Your task to perform on an android device: change your default location settings in chrome Image 0: 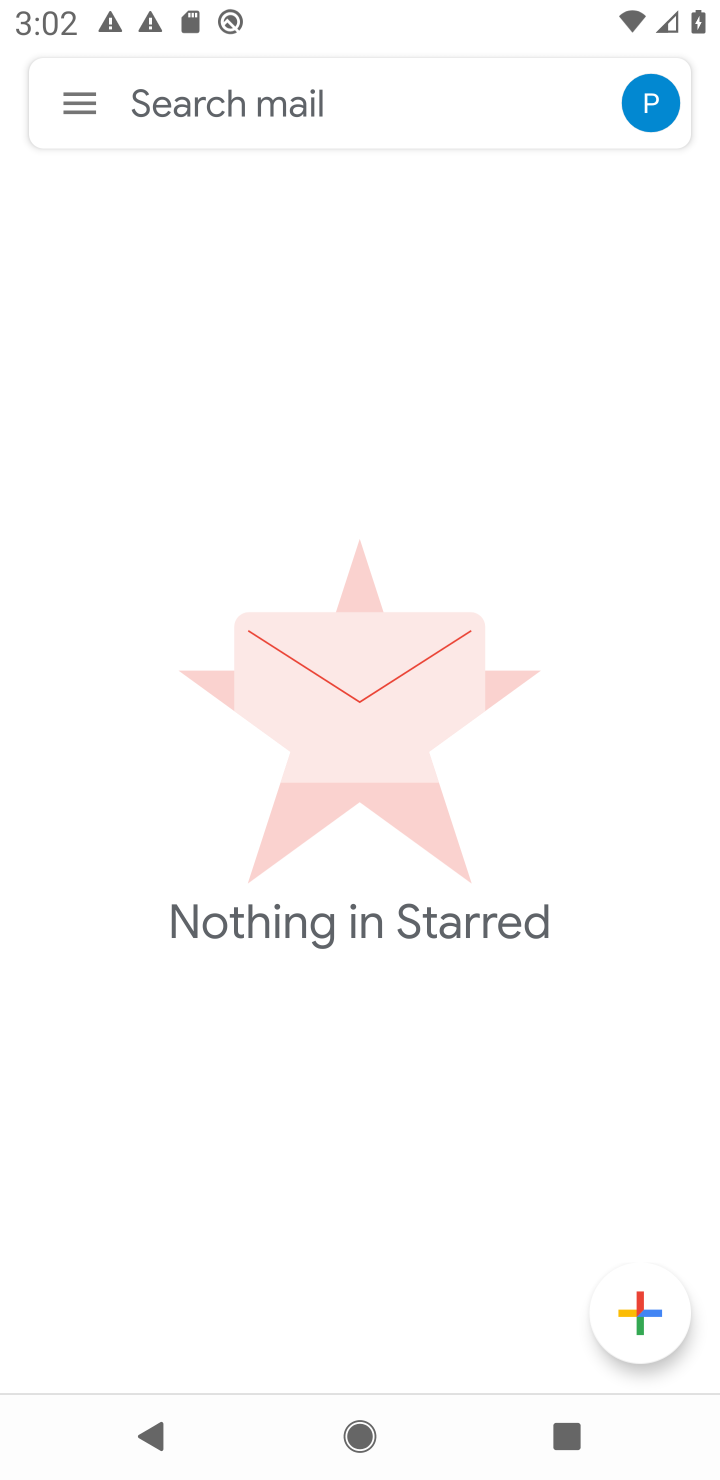
Step 0: press home button
Your task to perform on an android device: change your default location settings in chrome Image 1: 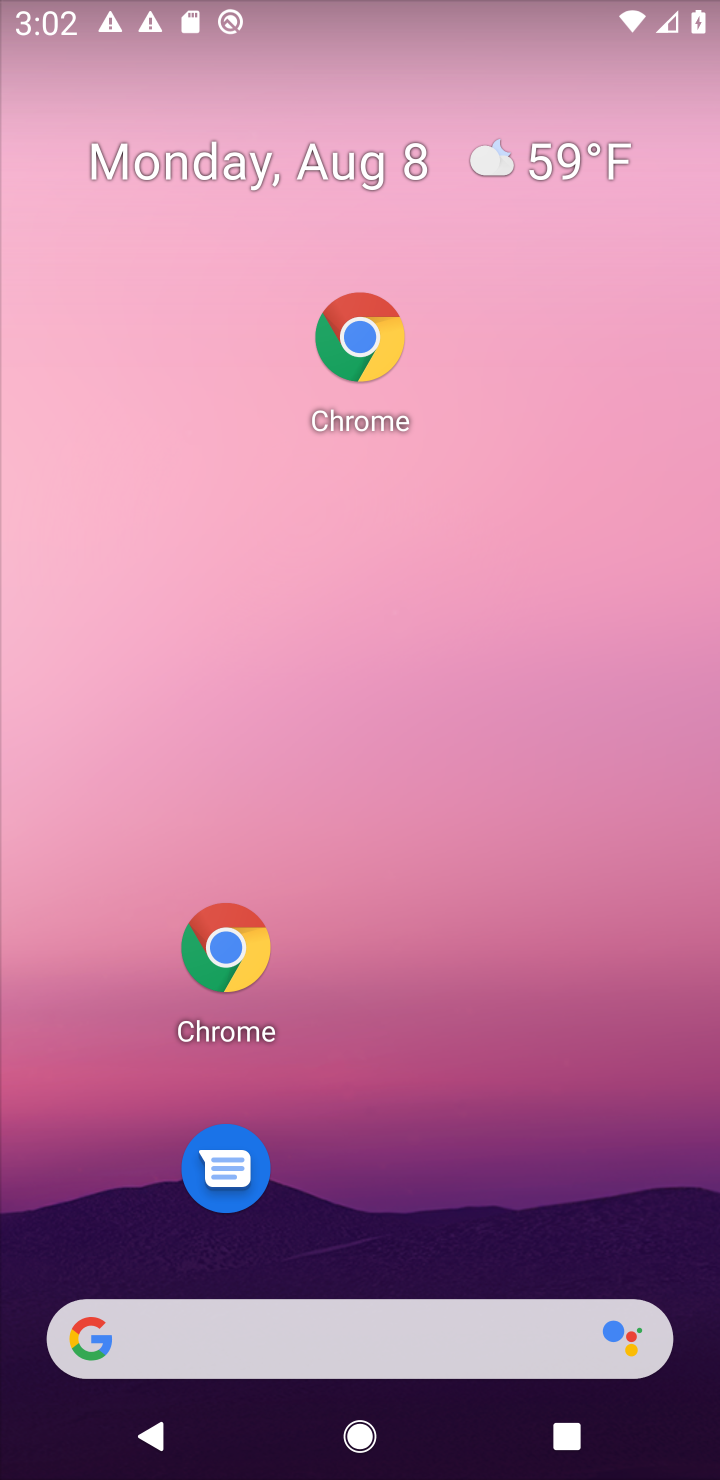
Step 1: click (227, 973)
Your task to perform on an android device: change your default location settings in chrome Image 2: 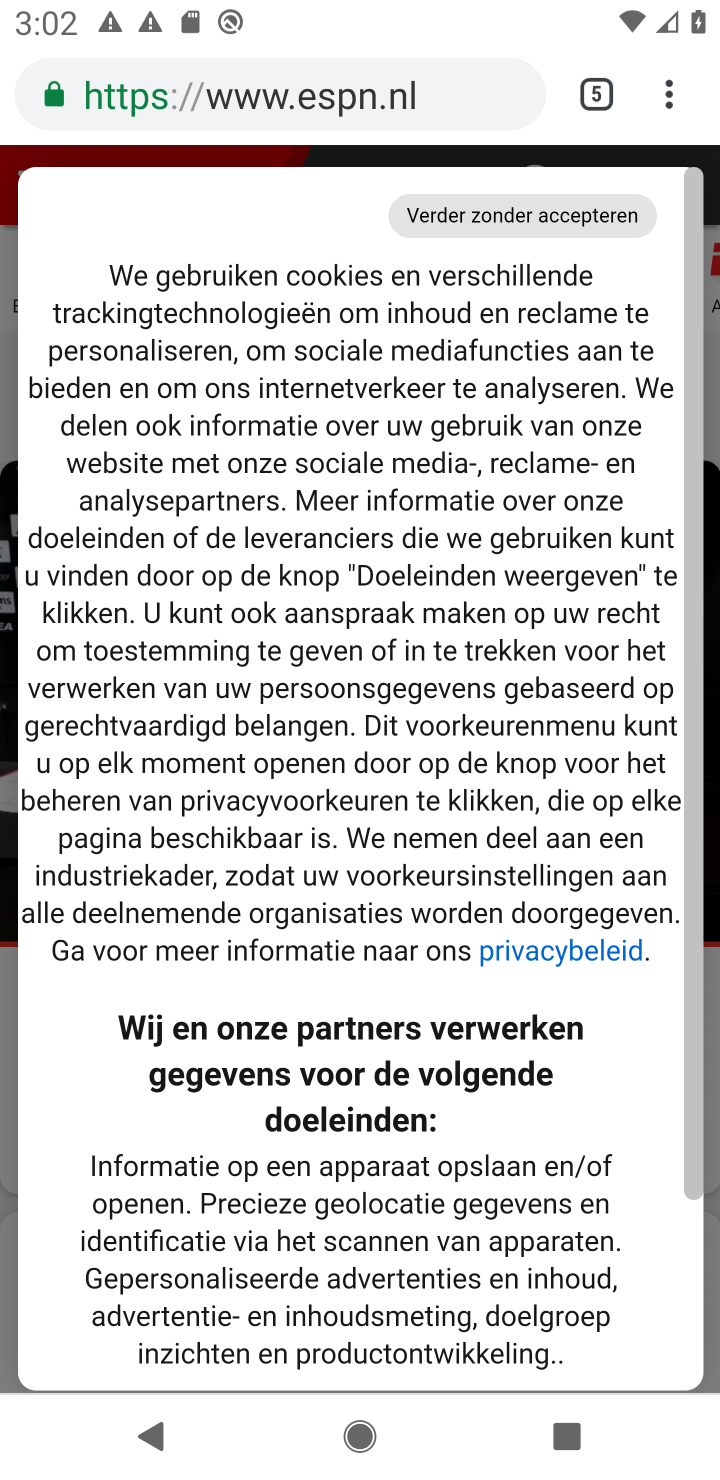
Step 2: click (658, 107)
Your task to perform on an android device: change your default location settings in chrome Image 3: 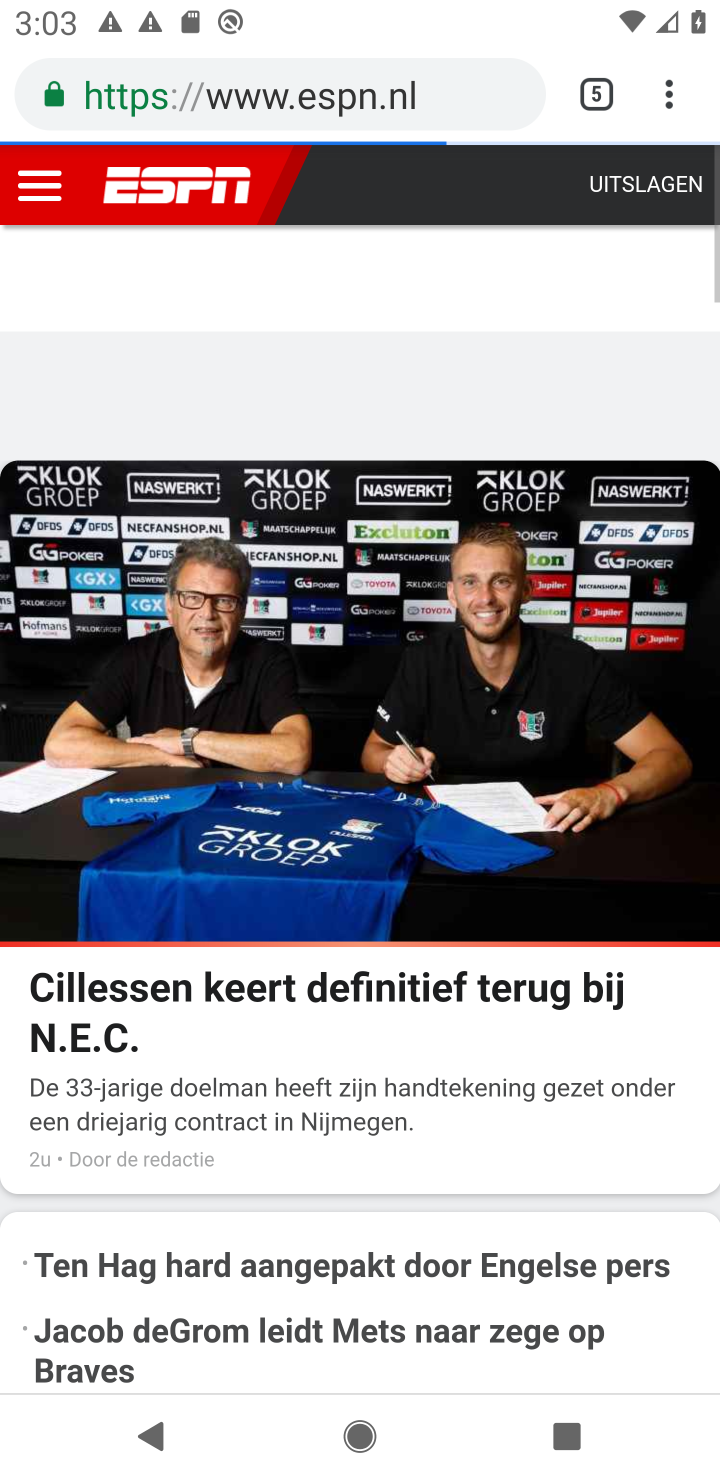
Step 3: click (671, 103)
Your task to perform on an android device: change your default location settings in chrome Image 4: 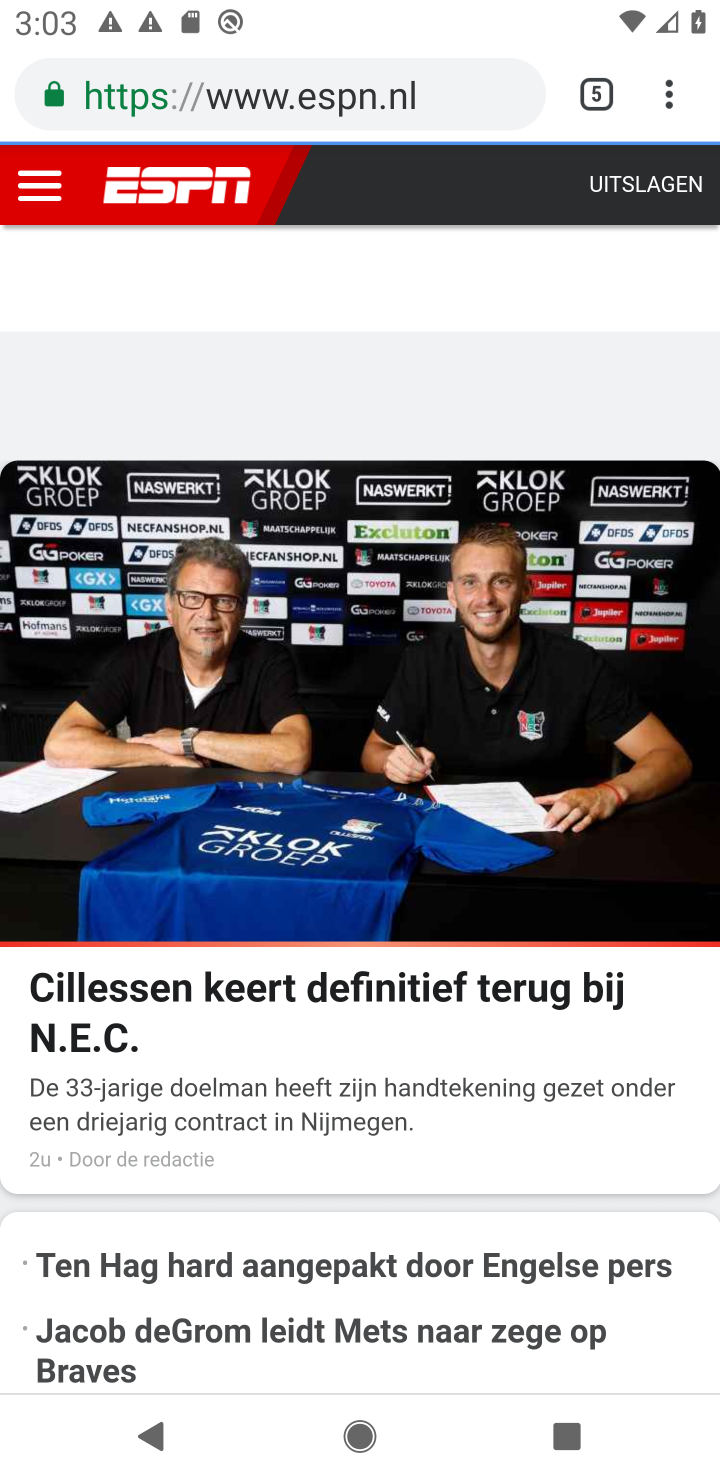
Step 4: click (671, 103)
Your task to perform on an android device: change your default location settings in chrome Image 5: 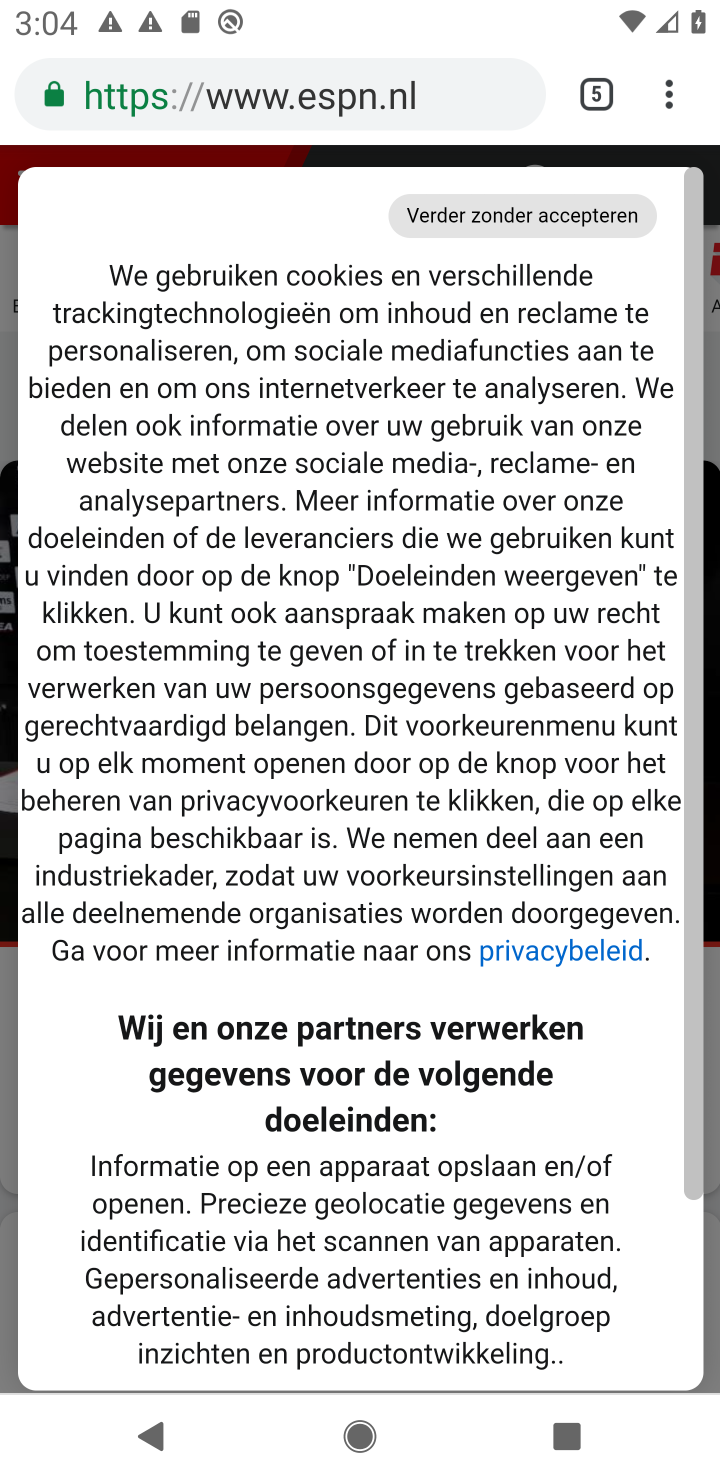
Step 5: task complete